Your task to perform on an android device: Search for vegetarian restaurants on Maps Image 0: 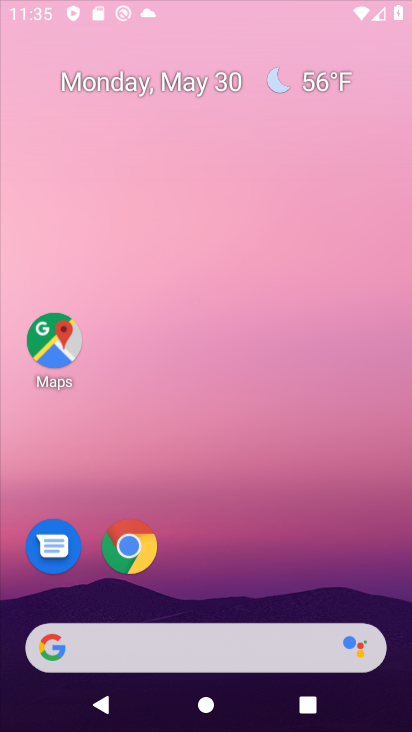
Step 0: click (56, 342)
Your task to perform on an android device: Search for vegetarian restaurants on Maps Image 1: 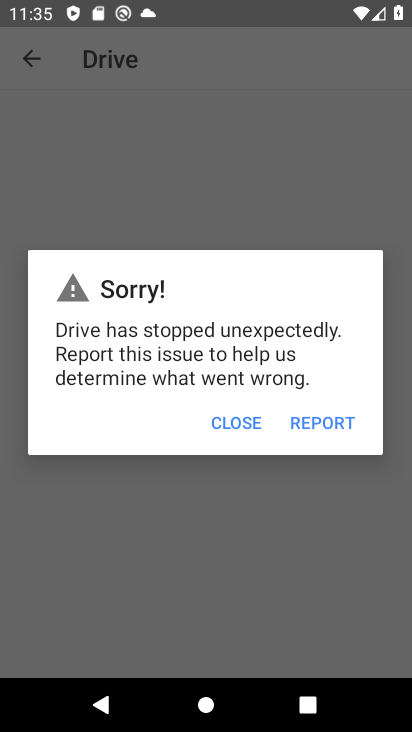
Step 1: press home button
Your task to perform on an android device: Search for vegetarian restaurants on Maps Image 2: 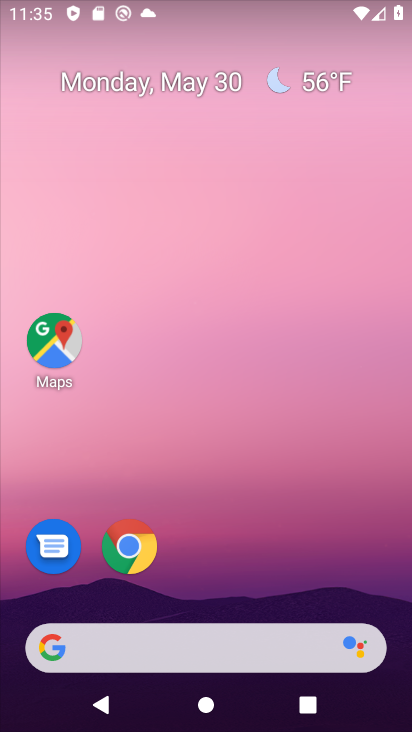
Step 2: click (50, 342)
Your task to perform on an android device: Search for vegetarian restaurants on Maps Image 3: 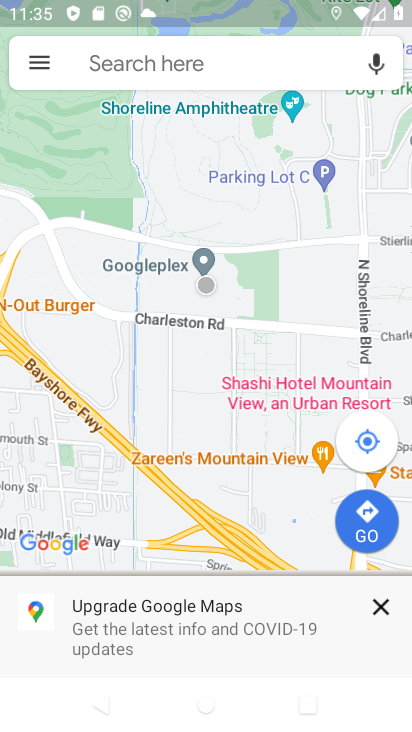
Step 3: click (237, 78)
Your task to perform on an android device: Search for vegetarian restaurants on Maps Image 4: 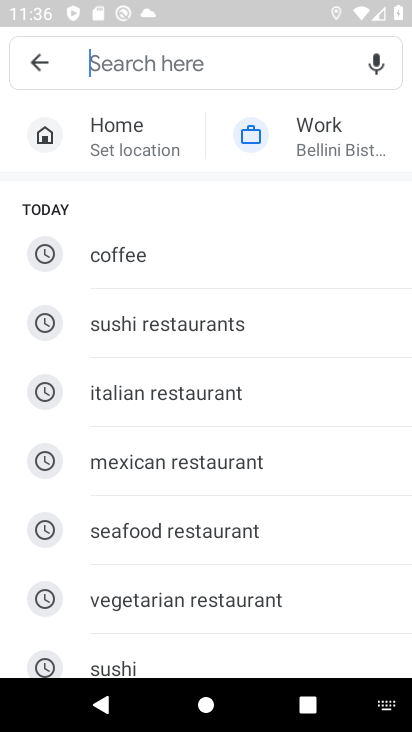
Step 4: type "vegetarian restaurants"
Your task to perform on an android device: Search for vegetarian restaurants on Maps Image 5: 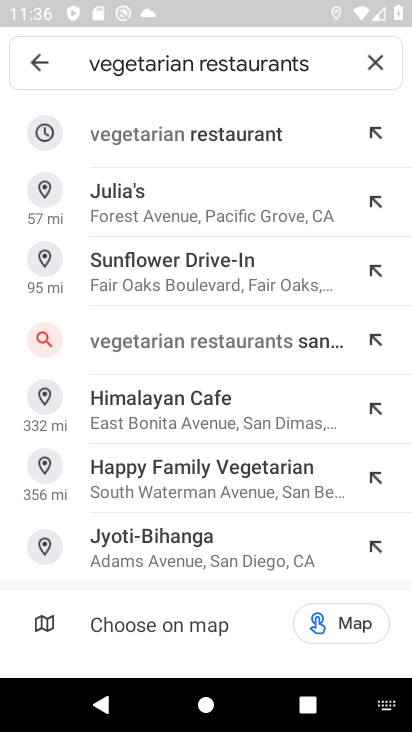
Step 5: click (193, 140)
Your task to perform on an android device: Search for vegetarian restaurants on Maps Image 6: 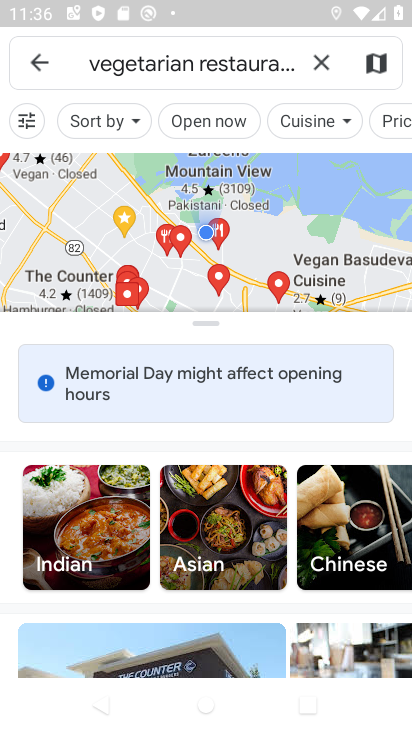
Step 6: task complete